Your task to perform on an android device: find which apps use the phone's location Image 0: 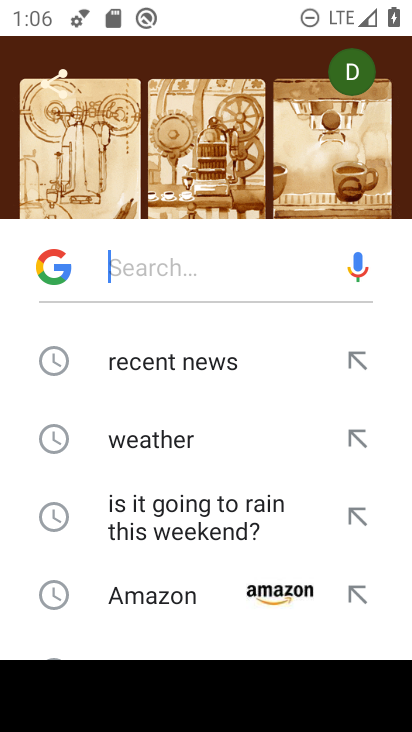
Step 0: press home button
Your task to perform on an android device: find which apps use the phone's location Image 1: 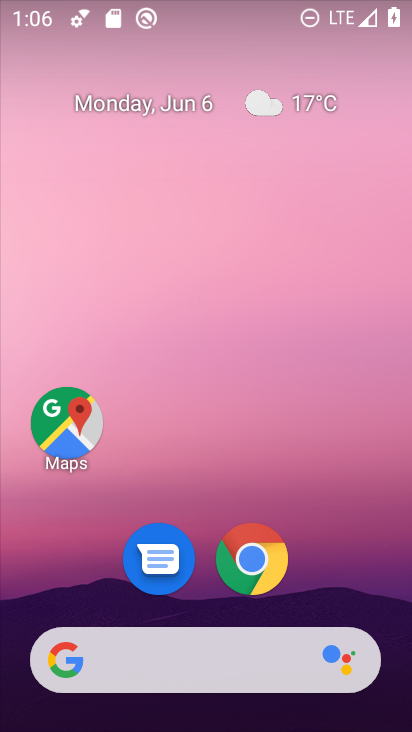
Step 1: drag from (276, 655) to (259, 106)
Your task to perform on an android device: find which apps use the phone's location Image 2: 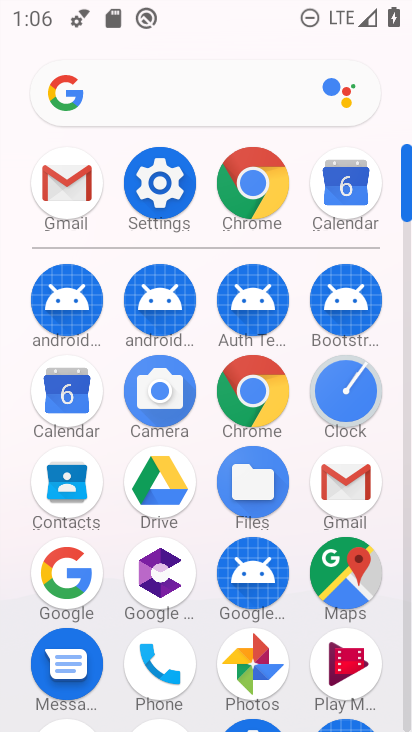
Step 2: click (178, 194)
Your task to perform on an android device: find which apps use the phone's location Image 3: 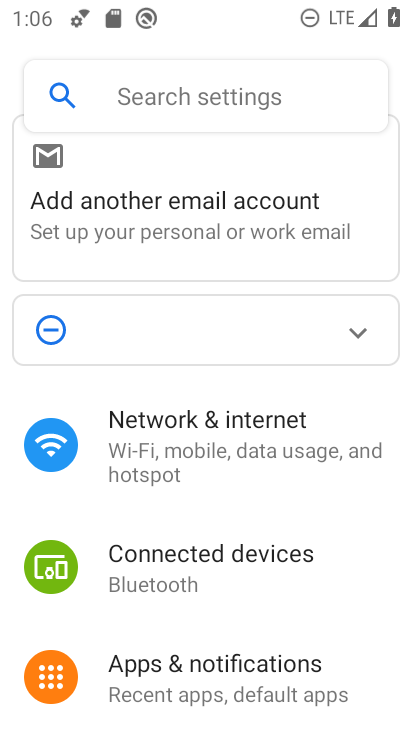
Step 3: drag from (155, 584) to (253, 215)
Your task to perform on an android device: find which apps use the phone's location Image 4: 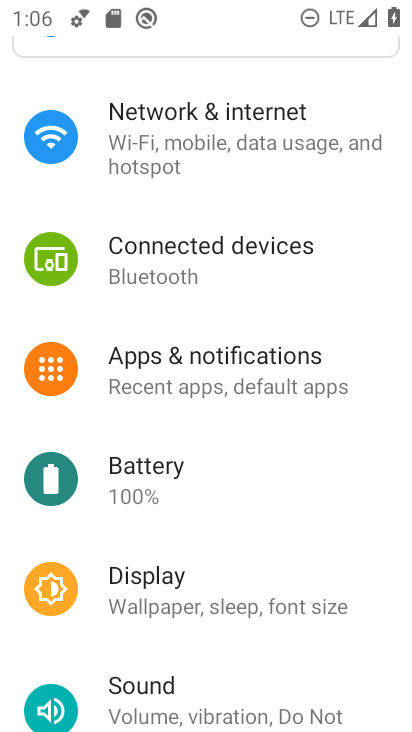
Step 4: drag from (192, 591) to (254, 231)
Your task to perform on an android device: find which apps use the phone's location Image 5: 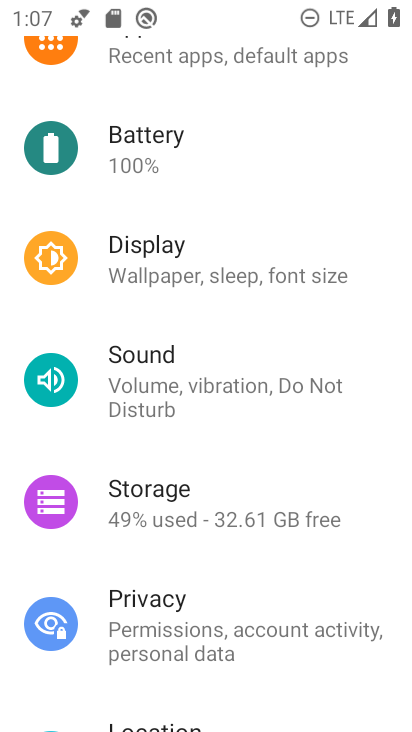
Step 5: drag from (181, 528) to (221, 290)
Your task to perform on an android device: find which apps use the phone's location Image 6: 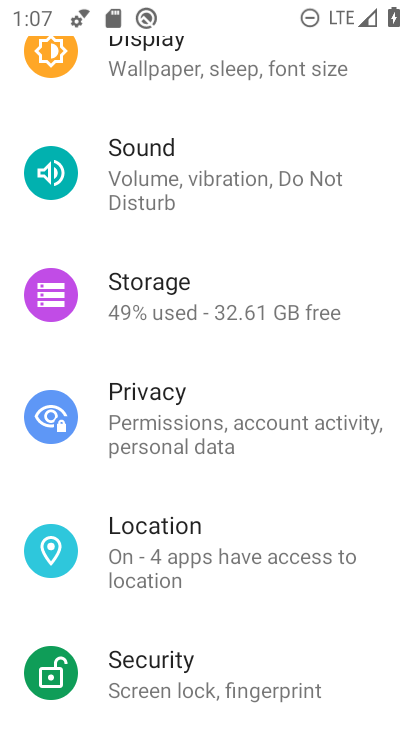
Step 6: click (222, 548)
Your task to perform on an android device: find which apps use the phone's location Image 7: 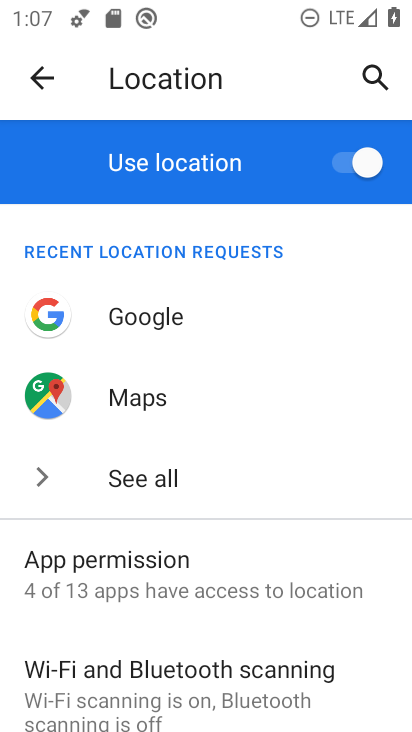
Step 7: click (186, 577)
Your task to perform on an android device: find which apps use the phone's location Image 8: 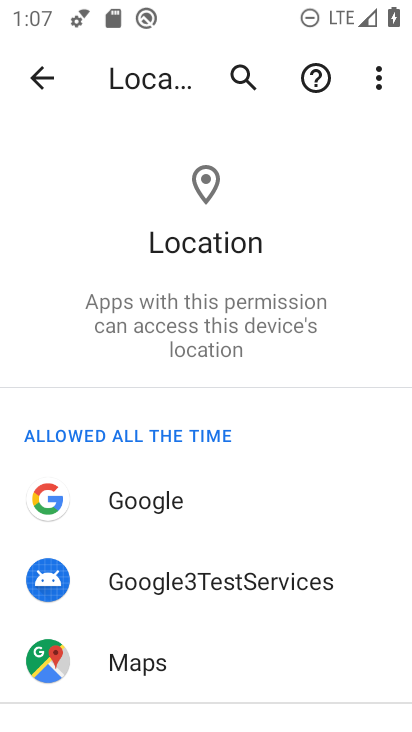
Step 8: task complete